Your task to perform on an android device: open the mobile data screen to see how much data has been used Image 0: 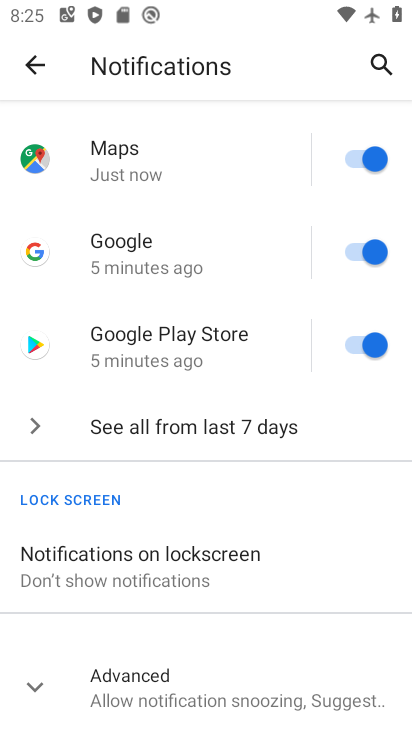
Step 0: press home button
Your task to perform on an android device: open the mobile data screen to see how much data has been used Image 1: 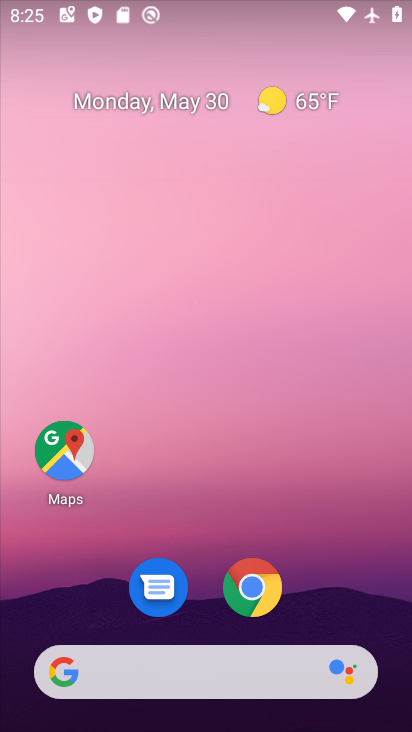
Step 1: drag from (203, 671) to (318, 118)
Your task to perform on an android device: open the mobile data screen to see how much data has been used Image 2: 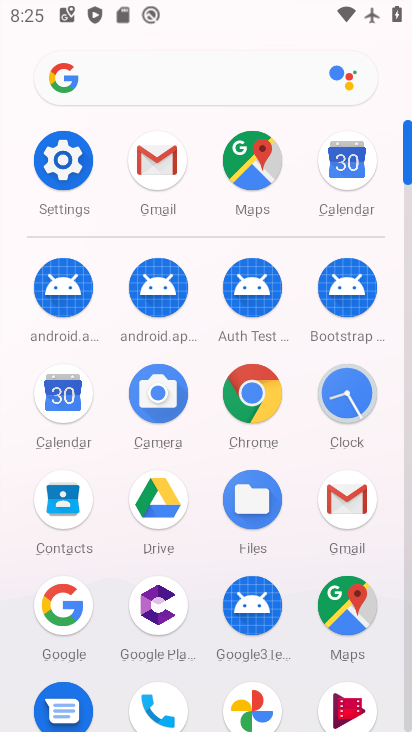
Step 2: click (63, 157)
Your task to perform on an android device: open the mobile data screen to see how much data has been used Image 3: 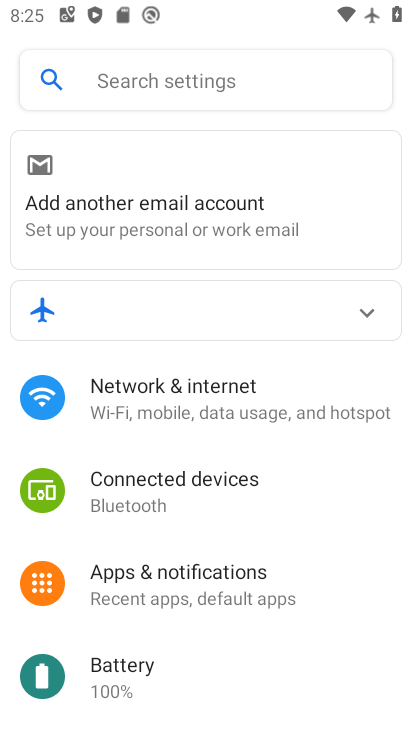
Step 3: click (215, 395)
Your task to perform on an android device: open the mobile data screen to see how much data has been used Image 4: 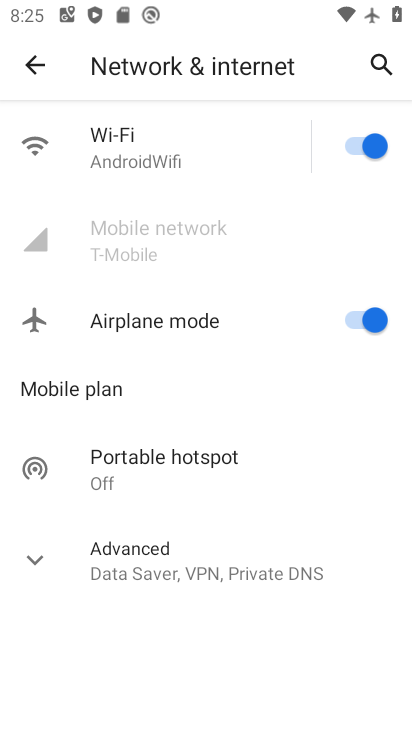
Step 4: task complete